Your task to perform on an android device: change notification settings in the gmail app Image 0: 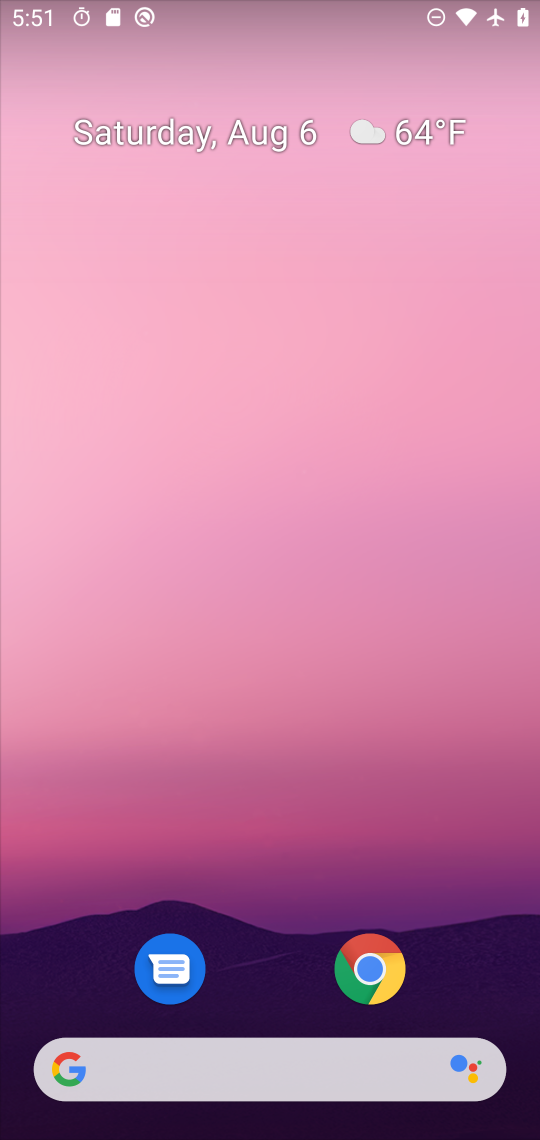
Step 0: press home button
Your task to perform on an android device: change notification settings in the gmail app Image 1: 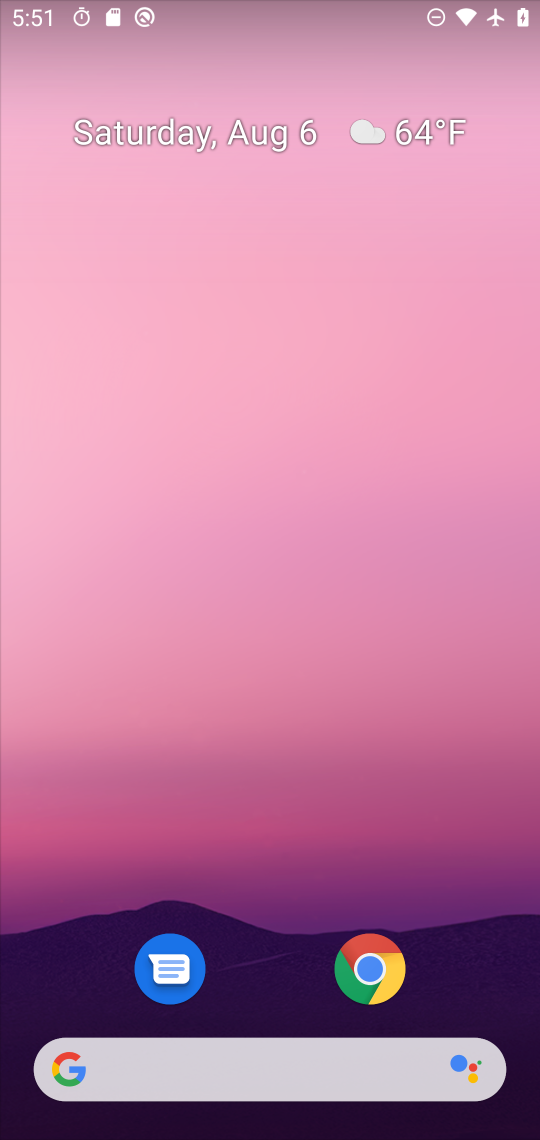
Step 1: drag from (276, 855) to (276, 303)
Your task to perform on an android device: change notification settings in the gmail app Image 2: 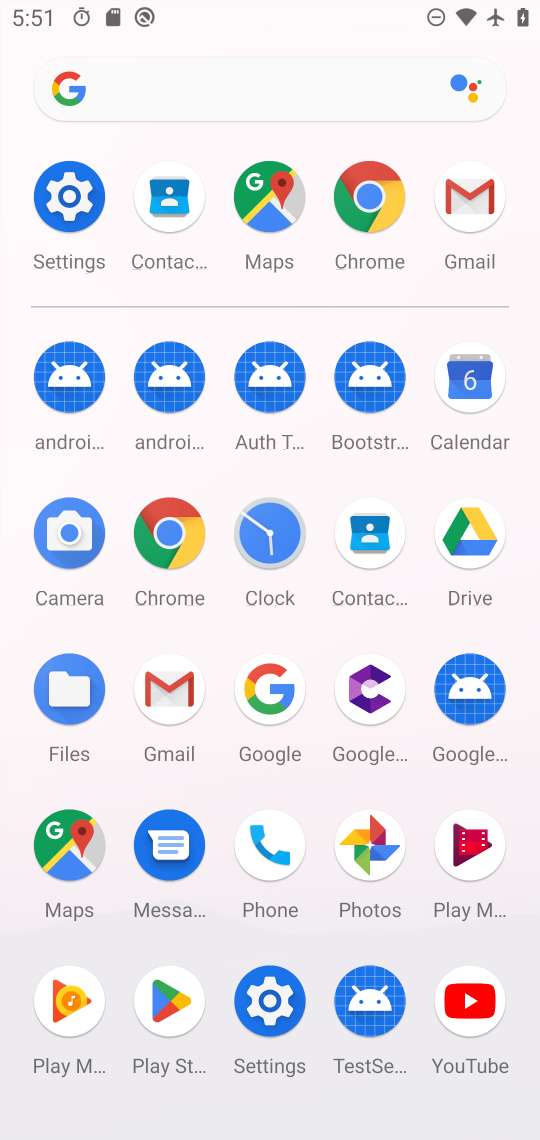
Step 2: click (468, 196)
Your task to perform on an android device: change notification settings in the gmail app Image 3: 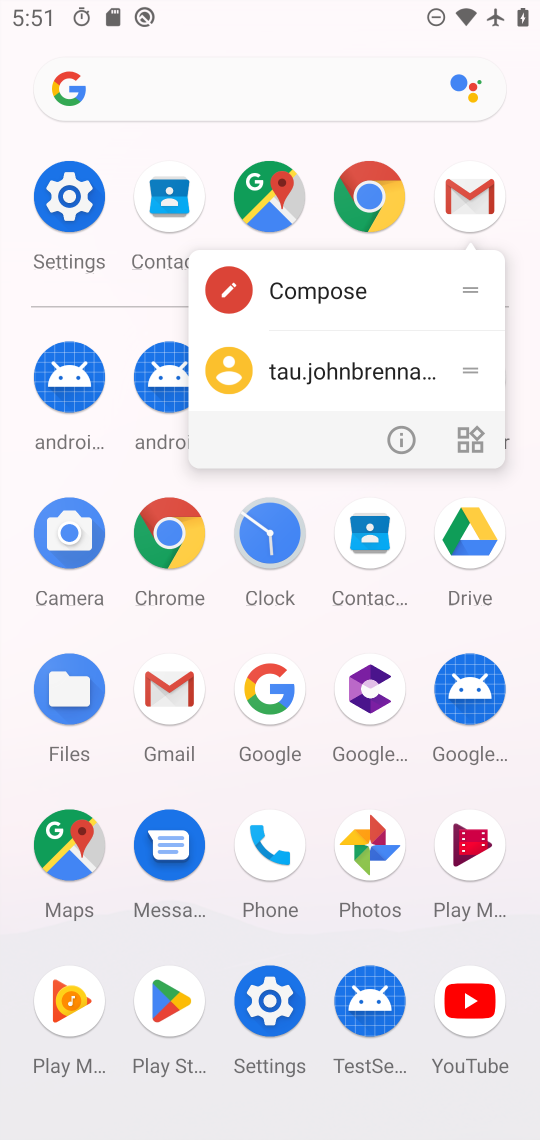
Step 3: click (468, 196)
Your task to perform on an android device: change notification settings in the gmail app Image 4: 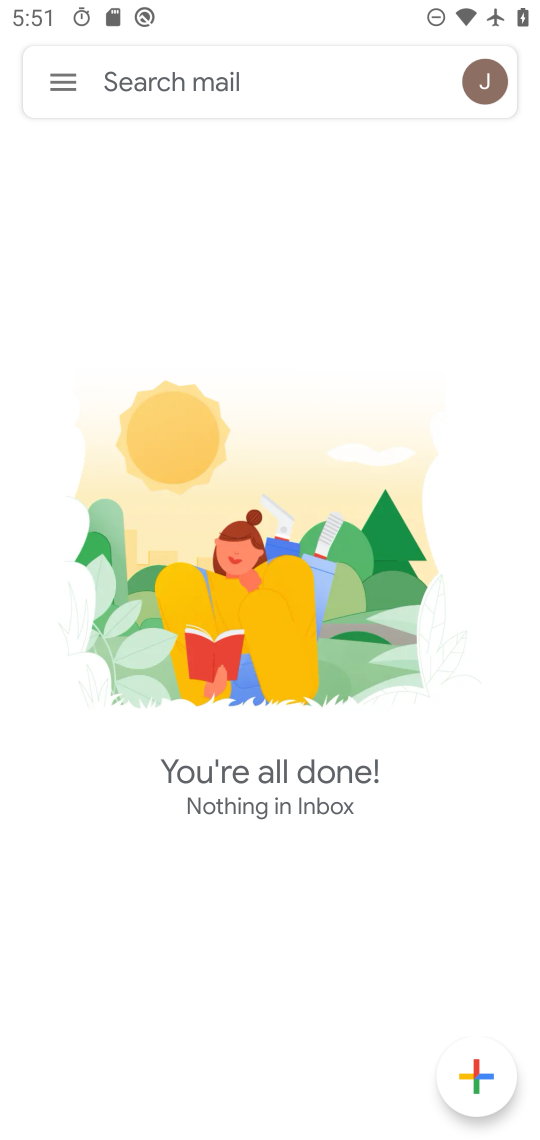
Step 4: click (67, 84)
Your task to perform on an android device: change notification settings in the gmail app Image 5: 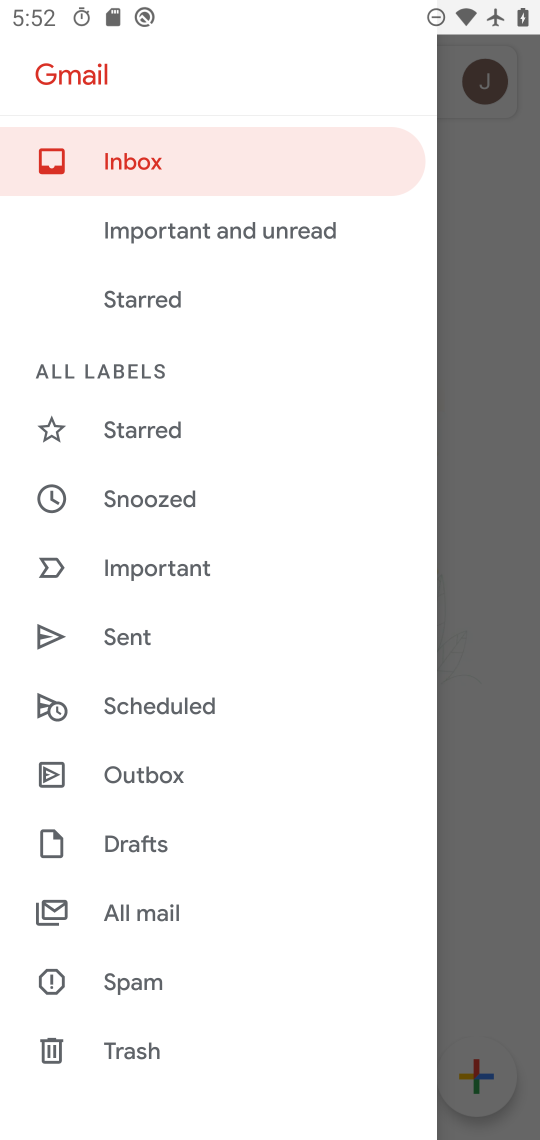
Step 5: drag from (253, 1045) to (219, 399)
Your task to perform on an android device: change notification settings in the gmail app Image 6: 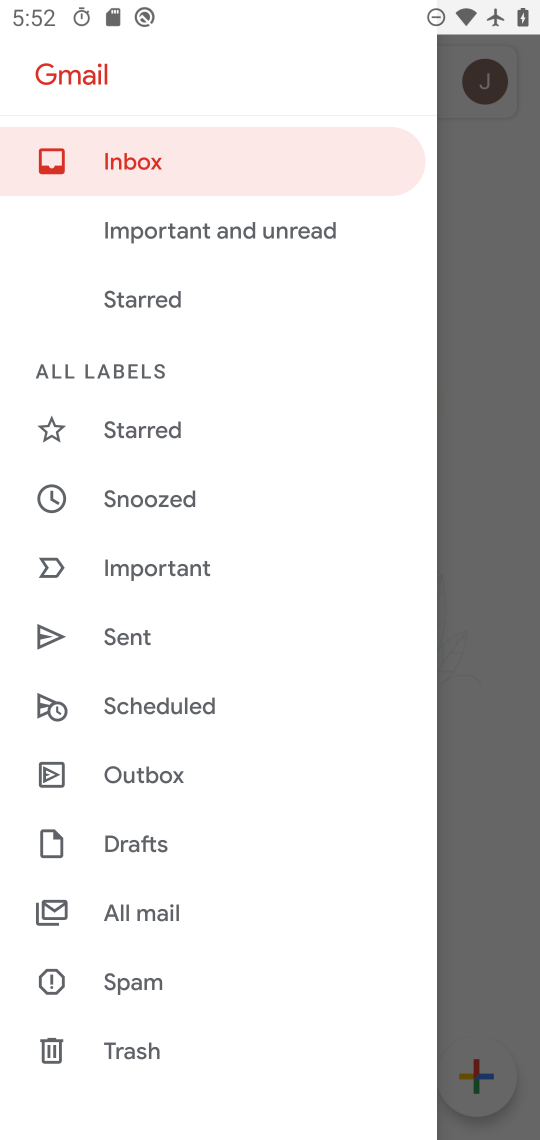
Step 6: drag from (326, 1007) to (313, 327)
Your task to perform on an android device: change notification settings in the gmail app Image 7: 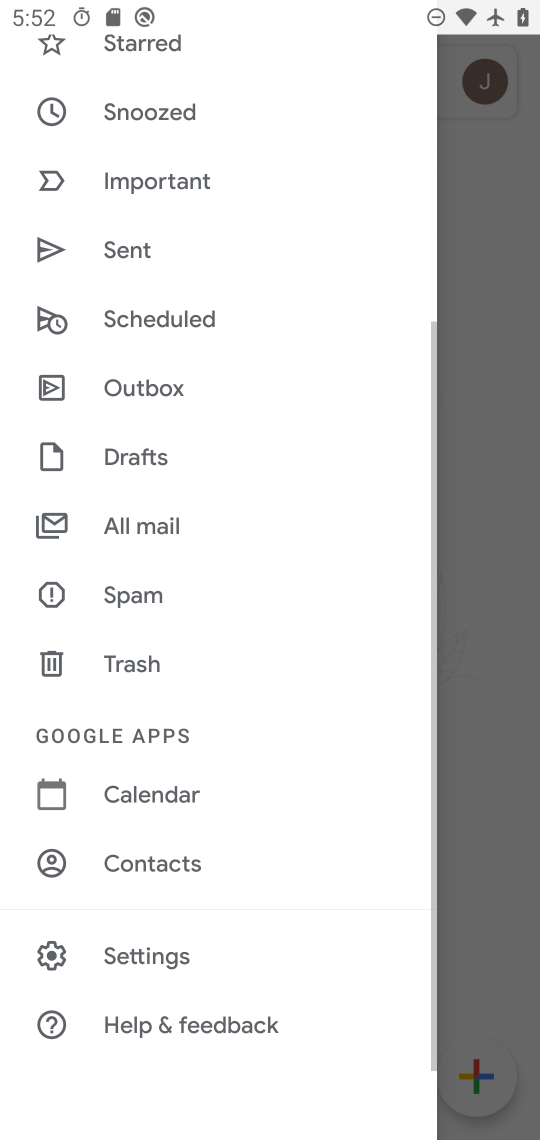
Step 7: click (130, 966)
Your task to perform on an android device: change notification settings in the gmail app Image 8: 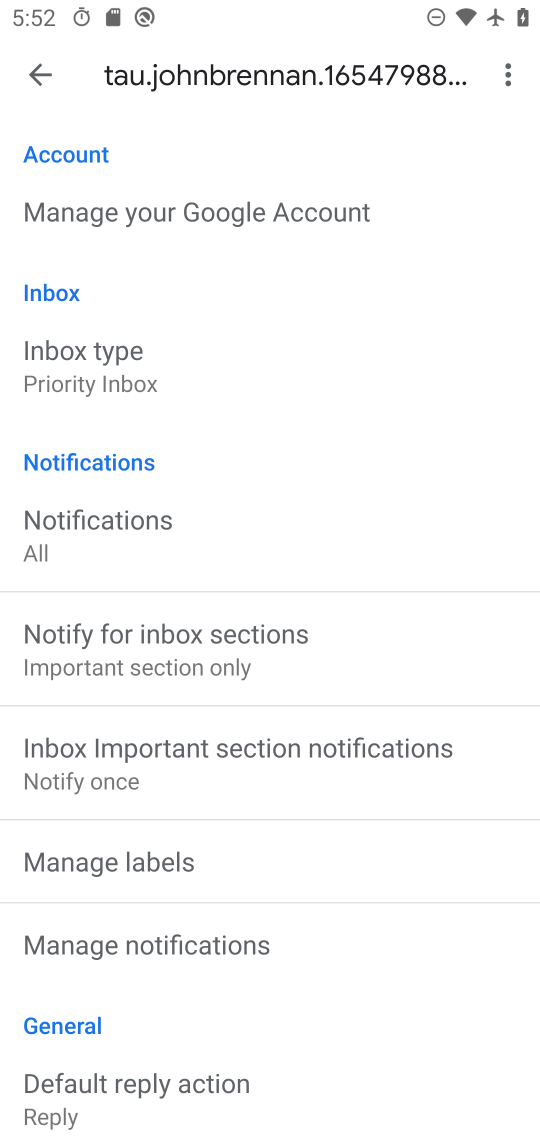
Step 8: click (127, 955)
Your task to perform on an android device: change notification settings in the gmail app Image 9: 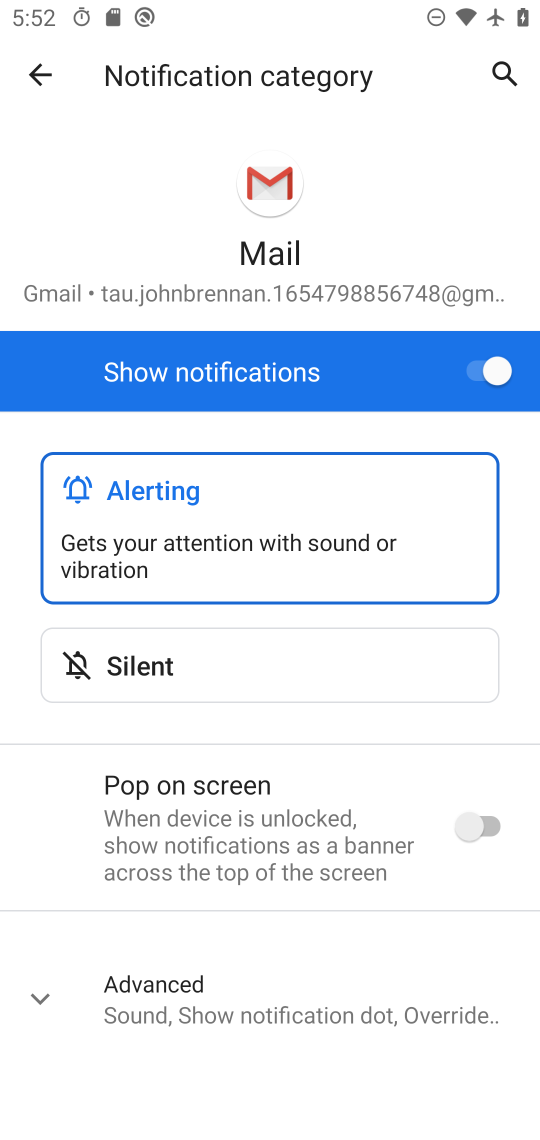
Step 9: click (486, 370)
Your task to perform on an android device: change notification settings in the gmail app Image 10: 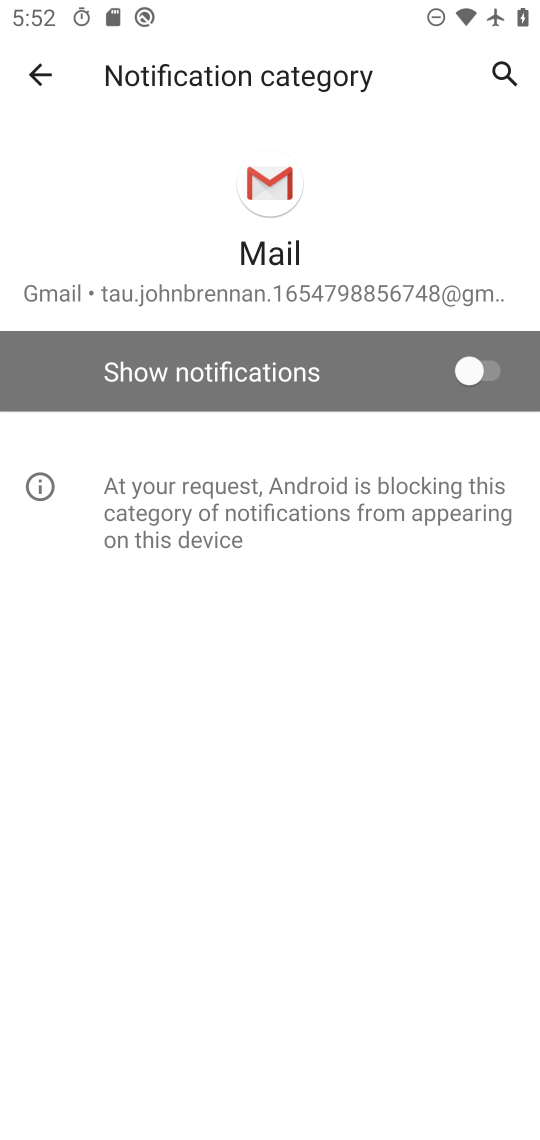
Step 10: task complete